Your task to perform on an android device: open chrome privacy settings Image 0: 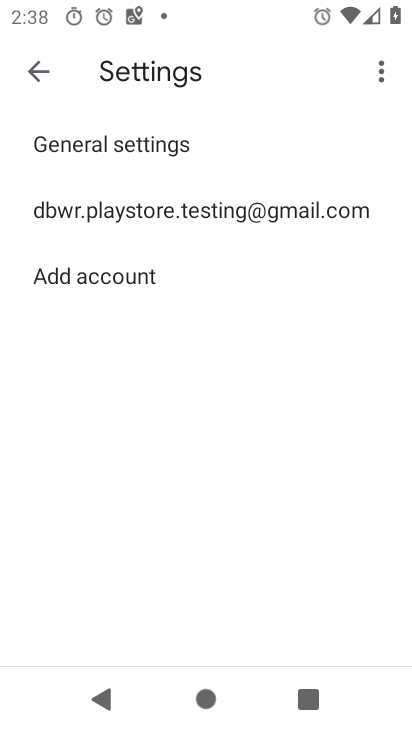
Step 0: press home button
Your task to perform on an android device: open chrome privacy settings Image 1: 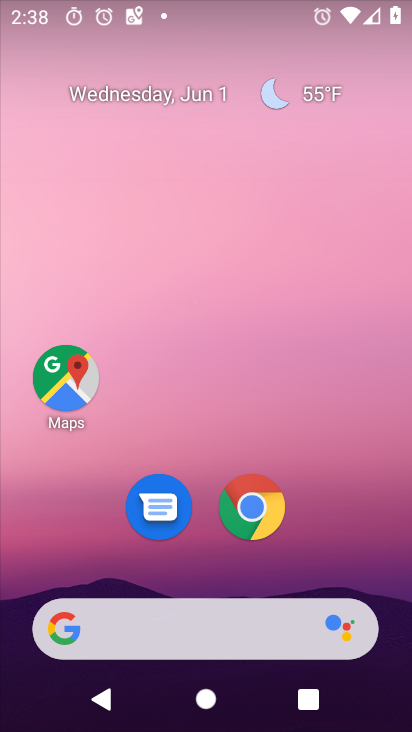
Step 1: click (249, 519)
Your task to perform on an android device: open chrome privacy settings Image 2: 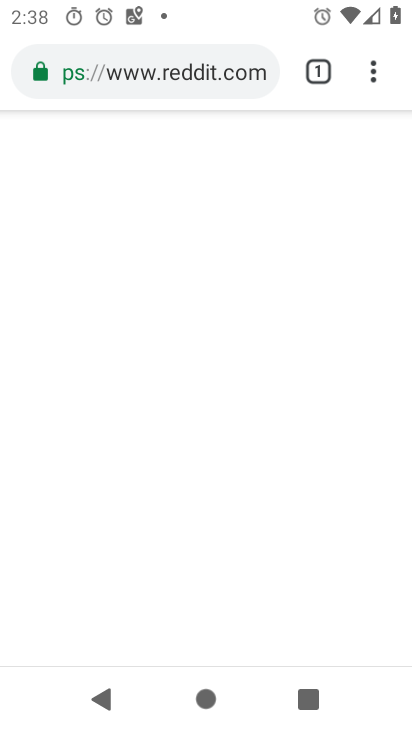
Step 2: drag from (372, 73) to (160, 508)
Your task to perform on an android device: open chrome privacy settings Image 3: 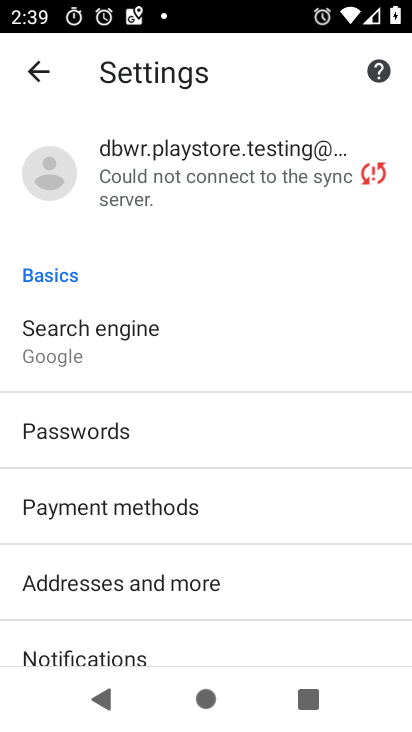
Step 3: drag from (269, 453) to (237, 231)
Your task to perform on an android device: open chrome privacy settings Image 4: 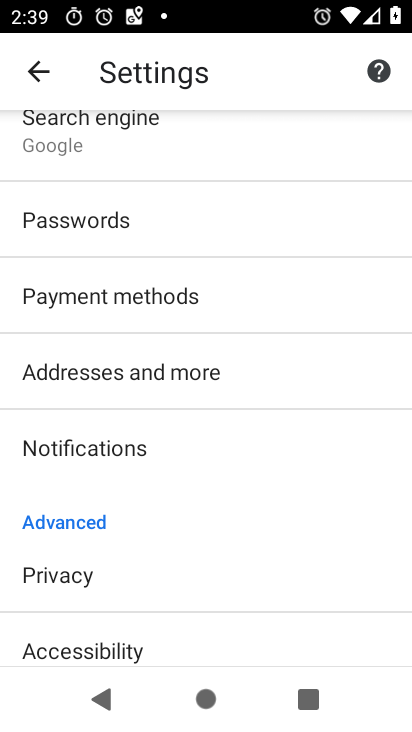
Step 4: click (52, 579)
Your task to perform on an android device: open chrome privacy settings Image 5: 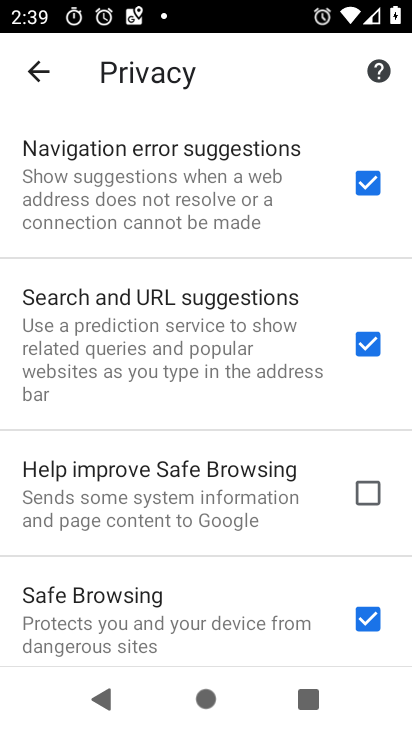
Step 5: task complete